Your task to perform on an android device: change the clock style Image 0: 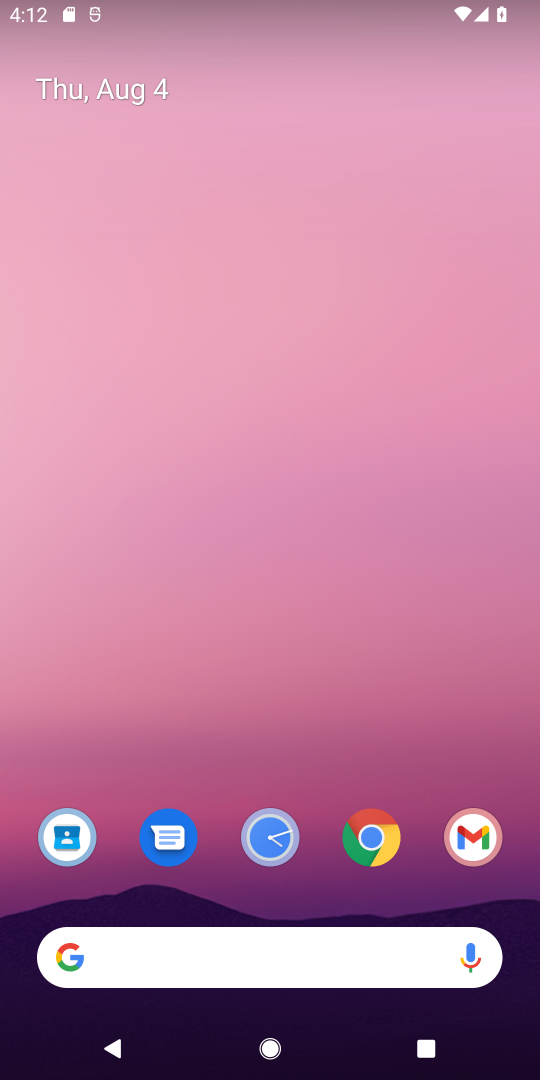
Step 0: press home button
Your task to perform on an android device: change the clock style Image 1: 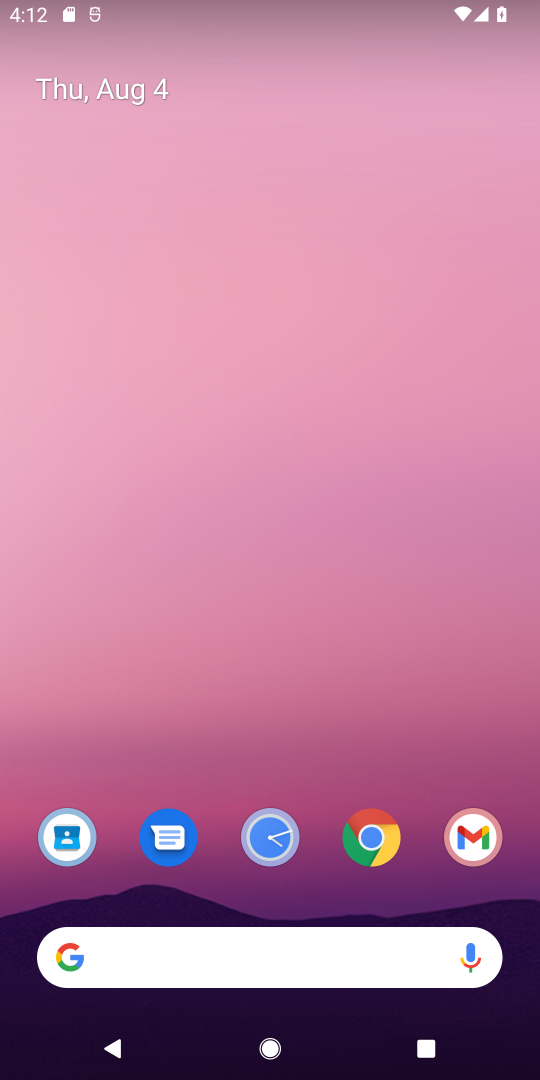
Step 1: drag from (321, 341) to (351, 0)
Your task to perform on an android device: change the clock style Image 2: 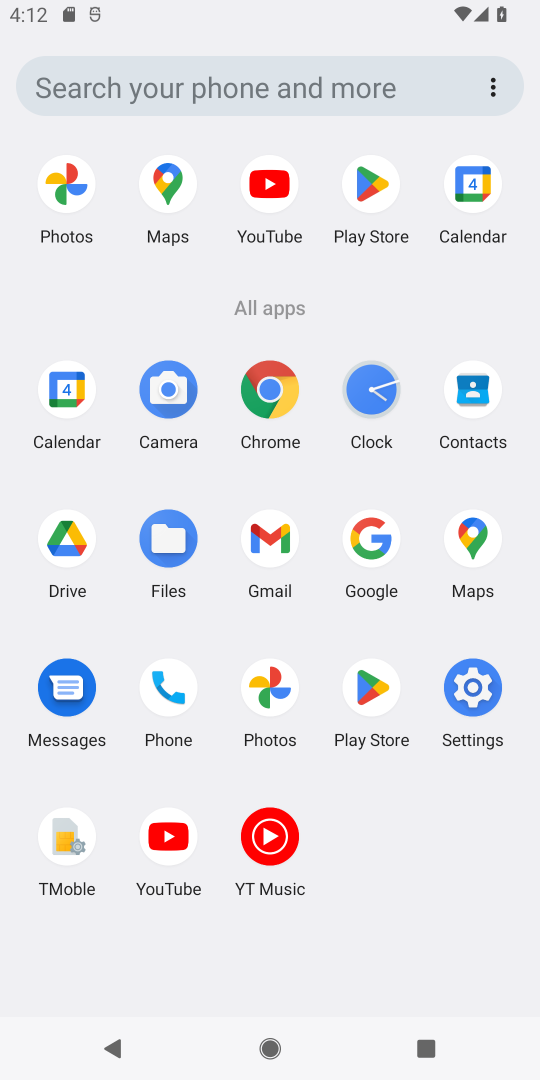
Step 2: click (366, 383)
Your task to perform on an android device: change the clock style Image 3: 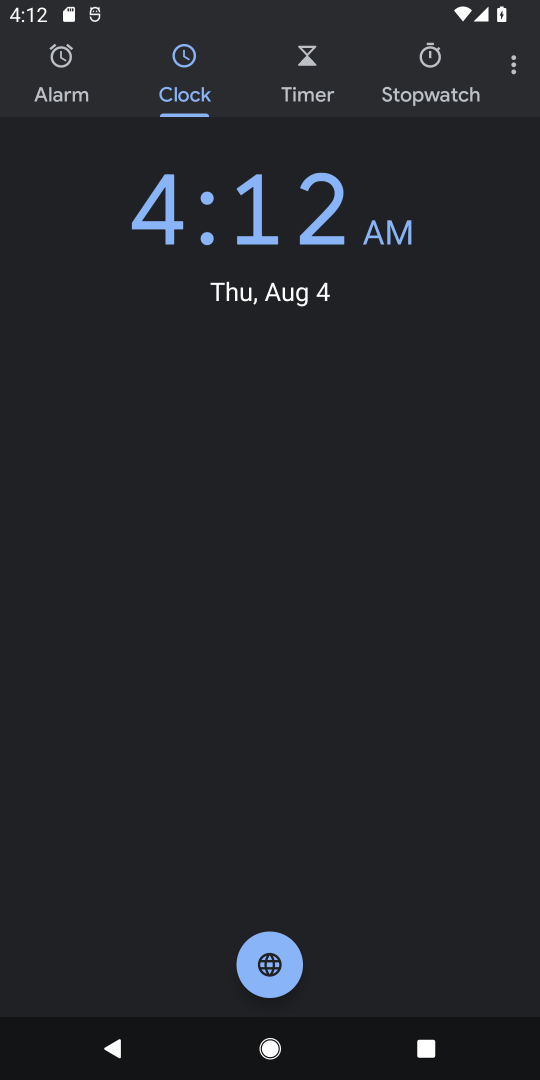
Step 3: click (516, 69)
Your task to perform on an android device: change the clock style Image 4: 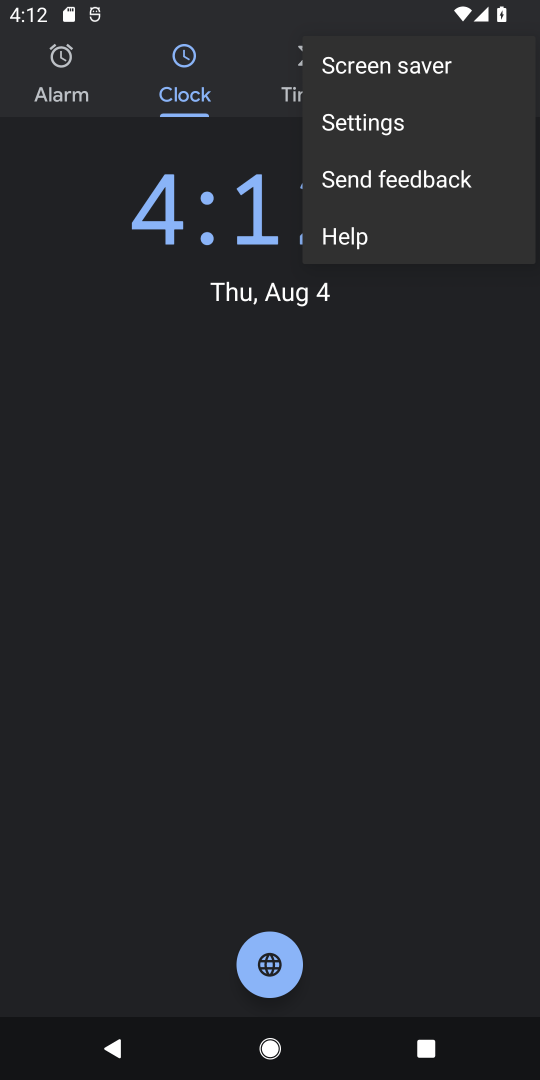
Step 4: click (405, 124)
Your task to perform on an android device: change the clock style Image 5: 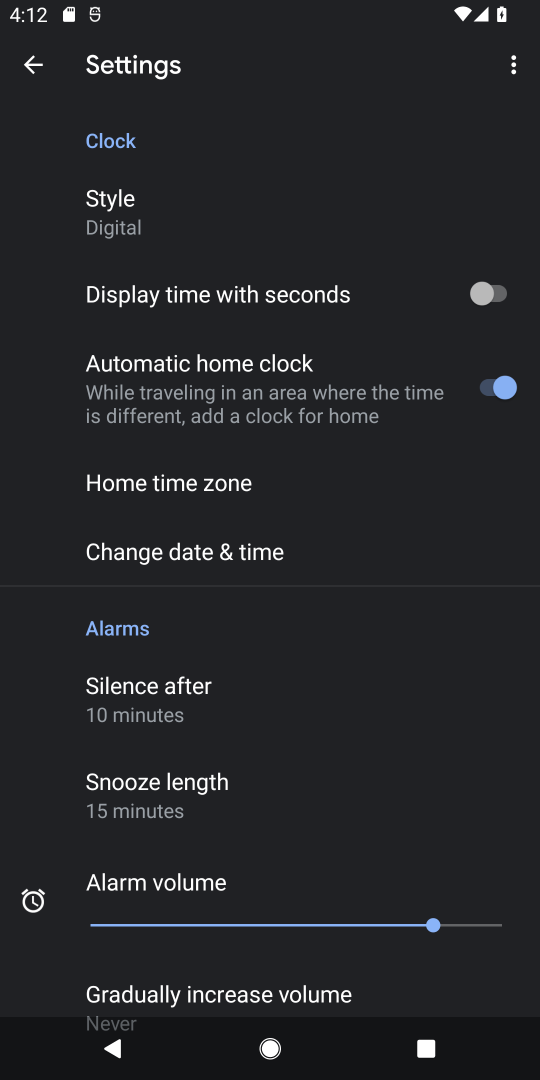
Step 5: click (172, 214)
Your task to perform on an android device: change the clock style Image 6: 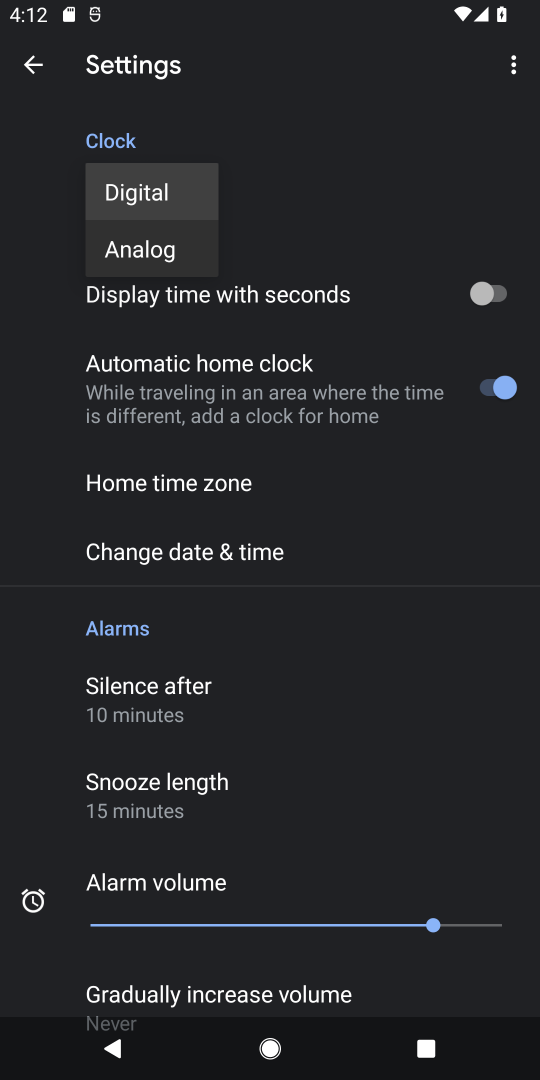
Step 6: click (183, 256)
Your task to perform on an android device: change the clock style Image 7: 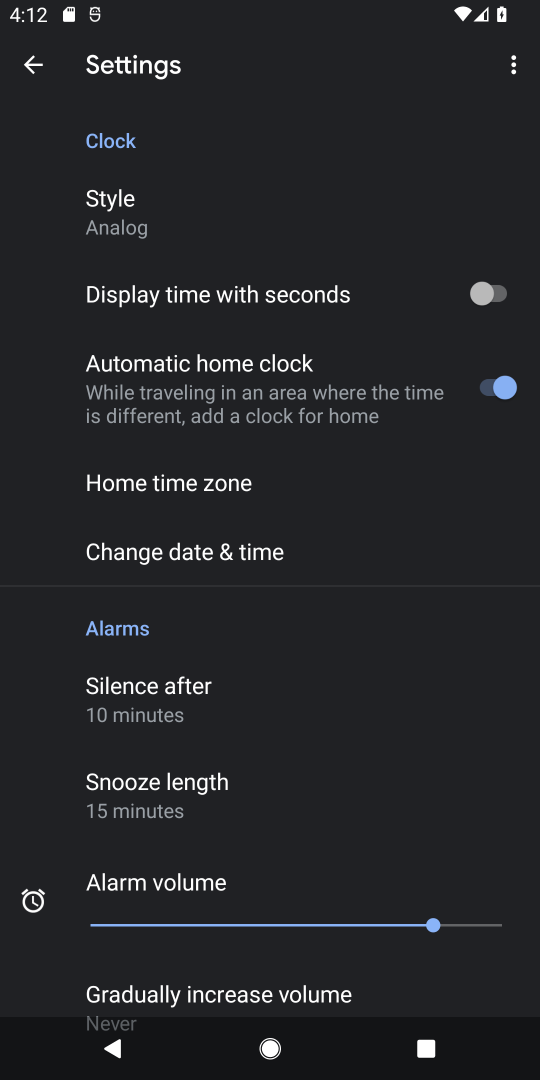
Step 7: task complete